Your task to perform on an android device: Add "razer naga" to the cart on target.com, then select checkout. Image 0: 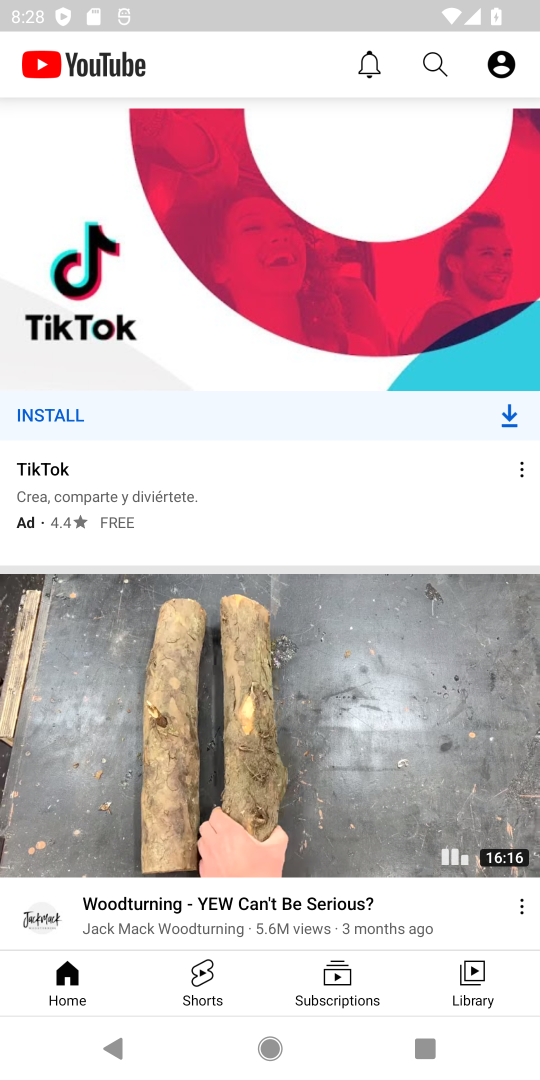
Step 0: press home button
Your task to perform on an android device: Add "razer naga" to the cart on target.com, then select checkout. Image 1: 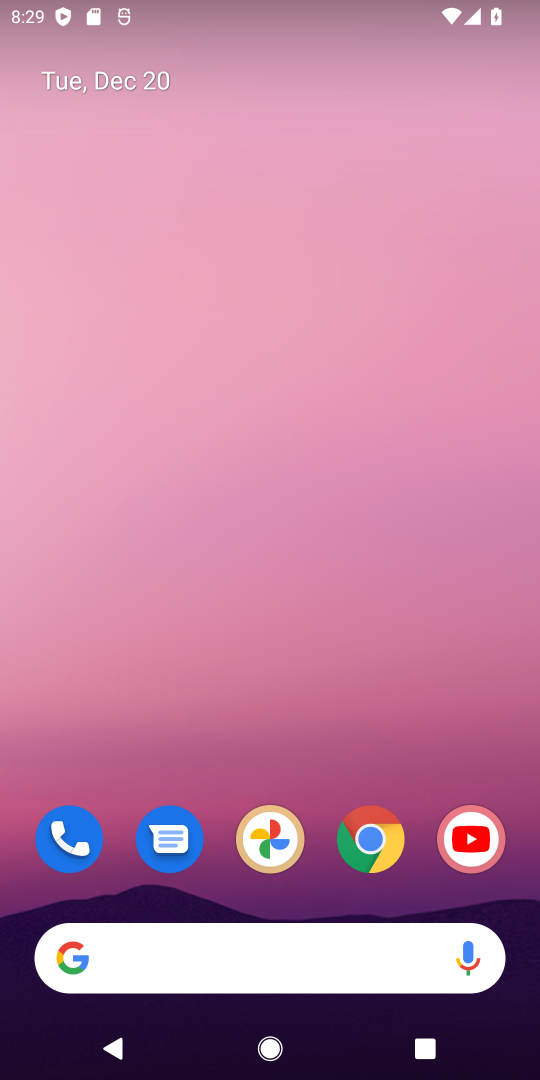
Step 1: drag from (222, 804) to (263, 402)
Your task to perform on an android device: Add "razer naga" to the cart on target.com, then select checkout. Image 2: 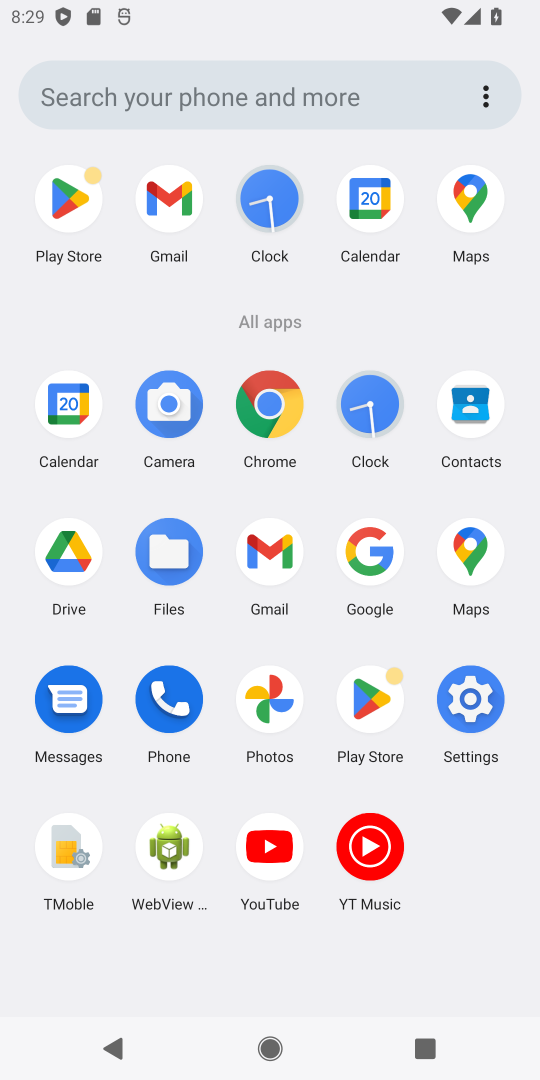
Step 2: click (375, 581)
Your task to perform on an android device: Add "razer naga" to the cart on target.com, then select checkout. Image 3: 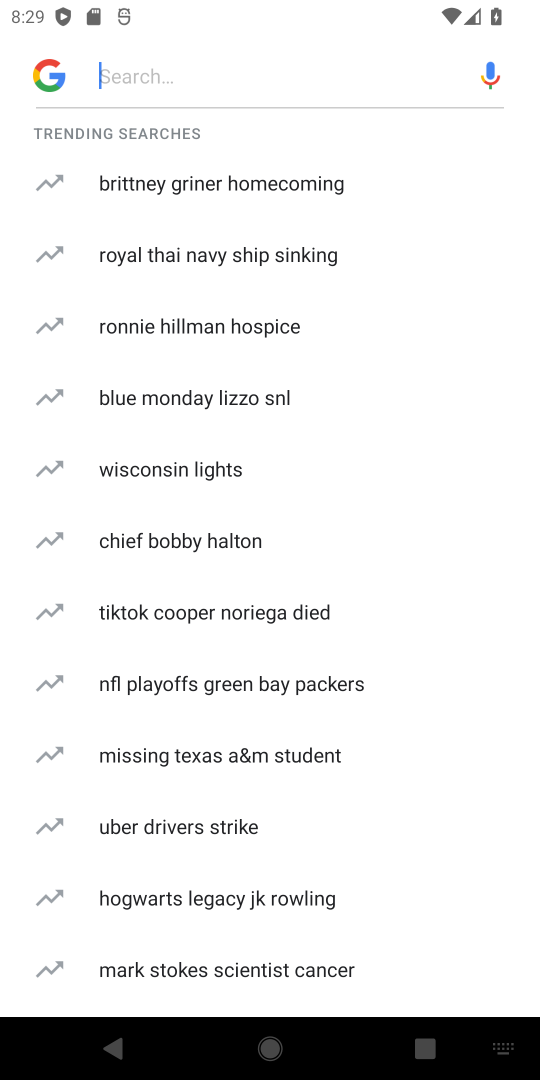
Step 3: type "target.com"
Your task to perform on an android device: Add "razer naga" to the cart on target.com, then select checkout. Image 4: 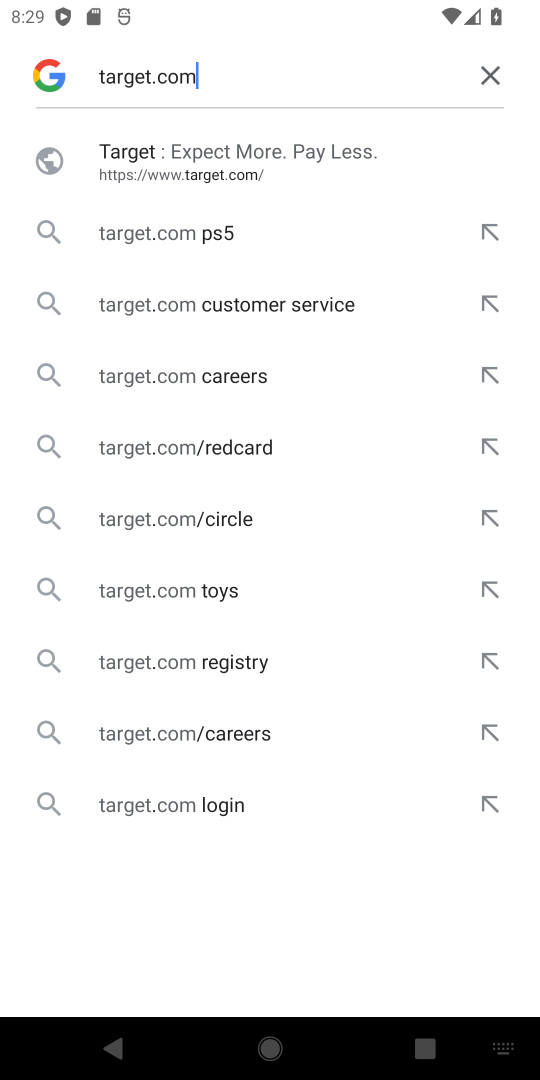
Step 4: click (149, 164)
Your task to perform on an android device: Add "razer naga" to the cart on target.com, then select checkout. Image 5: 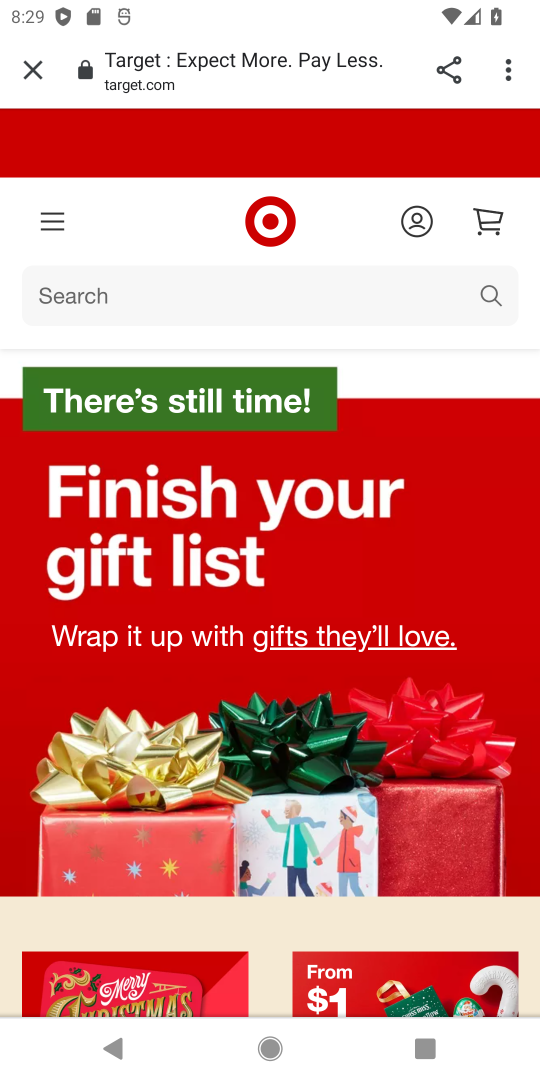
Step 5: drag from (278, 649) to (304, 421)
Your task to perform on an android device: Add "razer naga" to the cart on target.com, then select checkout. Image 6: 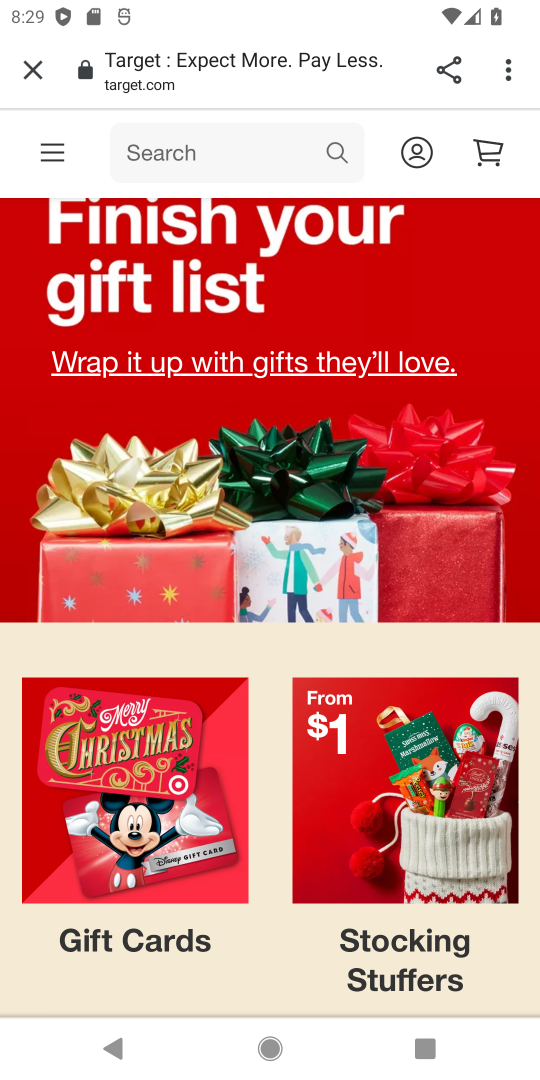
Step 6: click (252, 149)
Your task to perform on an android device: Add "razer naga" to the cart on target.com, then select checkout. Image 7: 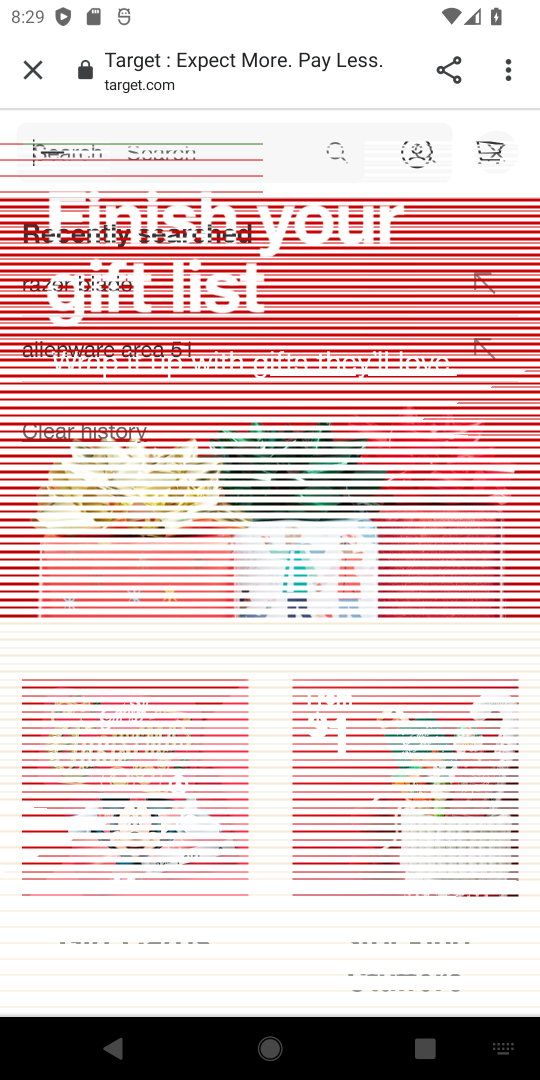
Step 7: type "razer naga"
Your task to perform on an android device: Add "razer naga" to the cart on target.com, then select checkout. Image 8: 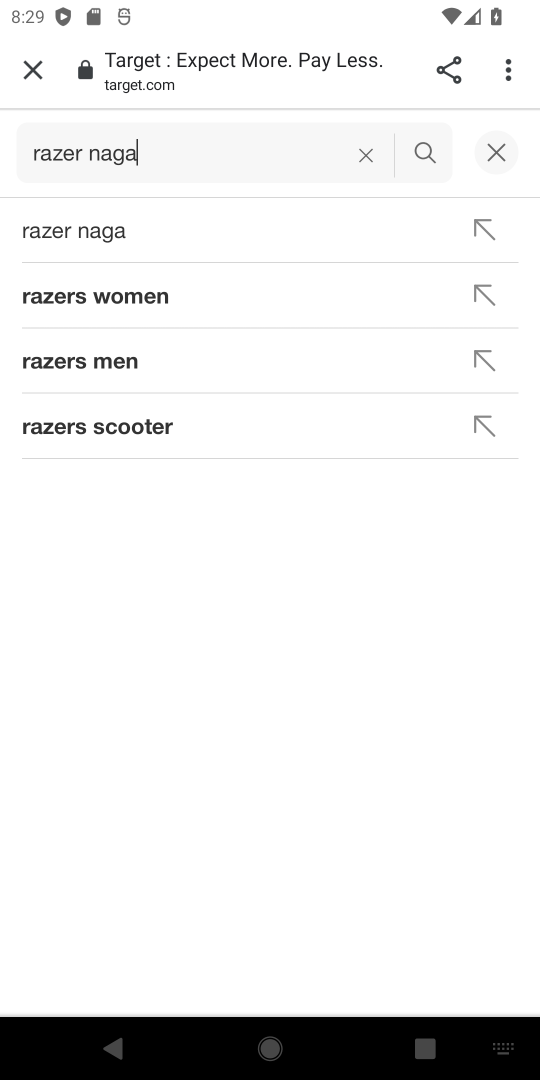
Step 8: click (112, 227)
Your task to perform on an android device: Add "razer naga" to the cart on target.com, then select checkout. Image 9: 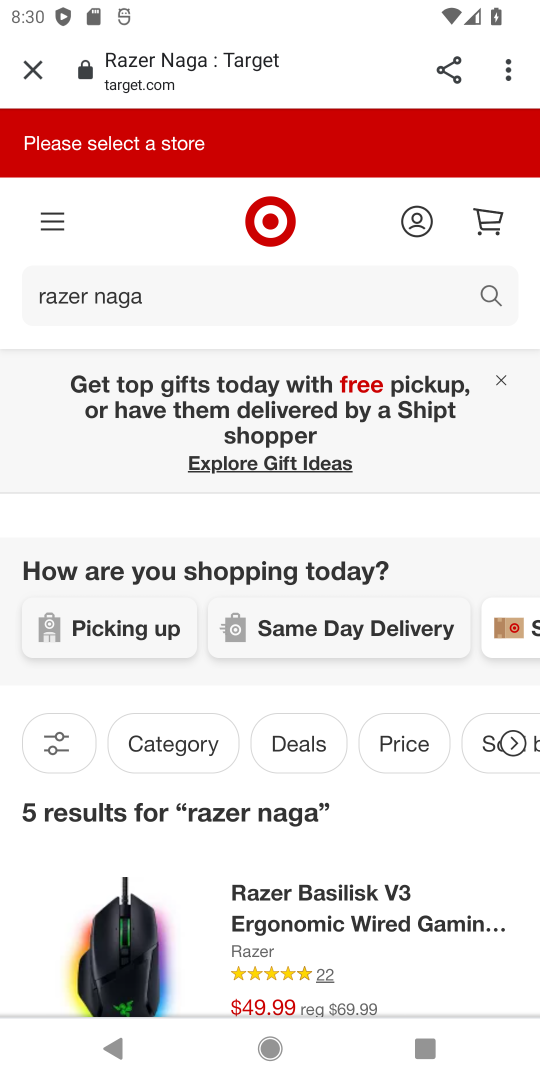
Step 9: drag from (278, 823) to (323, 570)
Your task to perform on an android device: Add "razer naga" to the cart on target.com, then select checkout. Image 10: 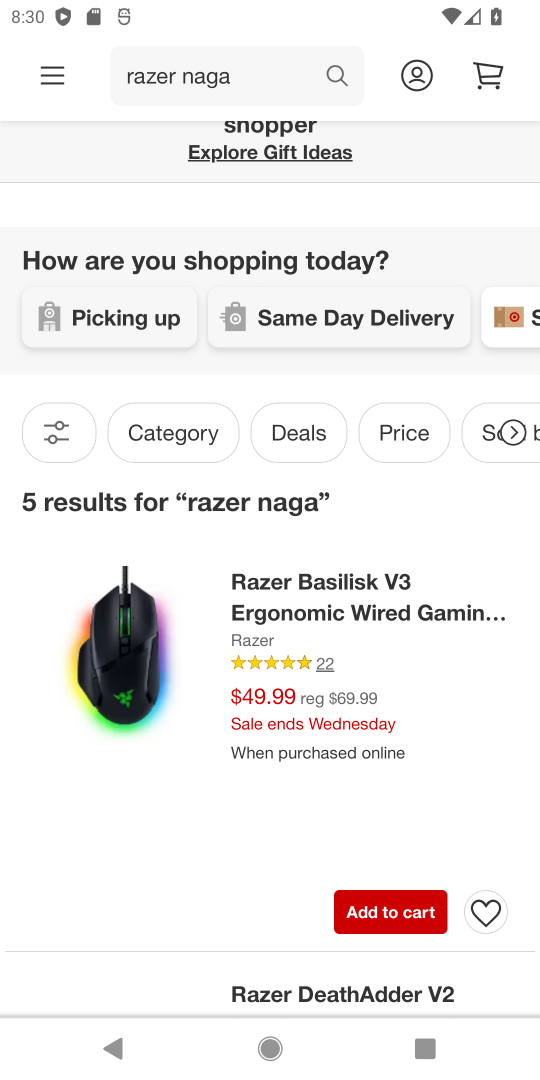
Step 10: click (371, 917)
Your task to perform on an android device: Add "razer naga" to the cart on target.com, then select checkout. Image 11: 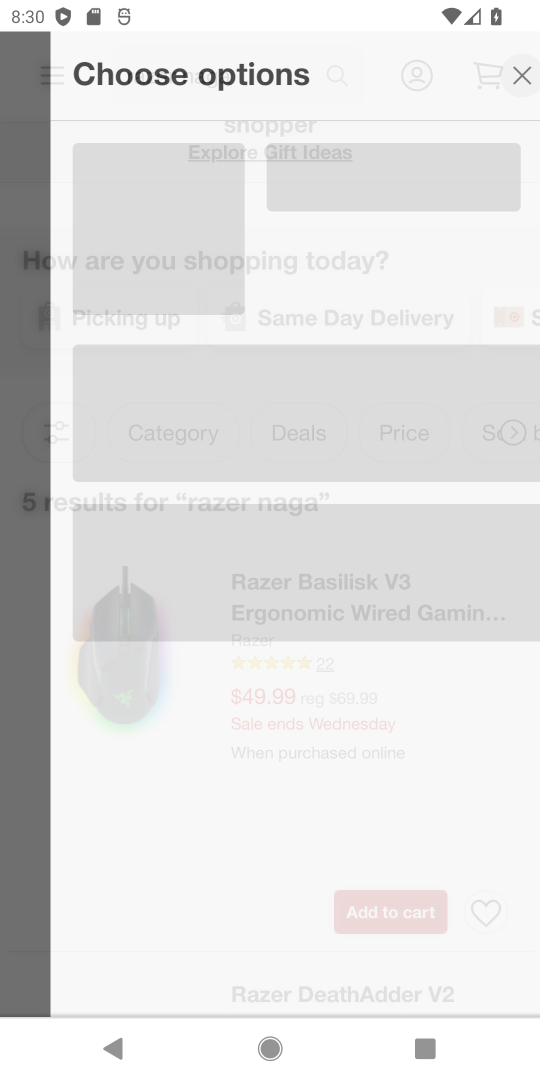
Step 11: click (525, 71)
Your task to perform on an android device: Add "razer naga" to the cart on target.com, then select checkout. Image 12: 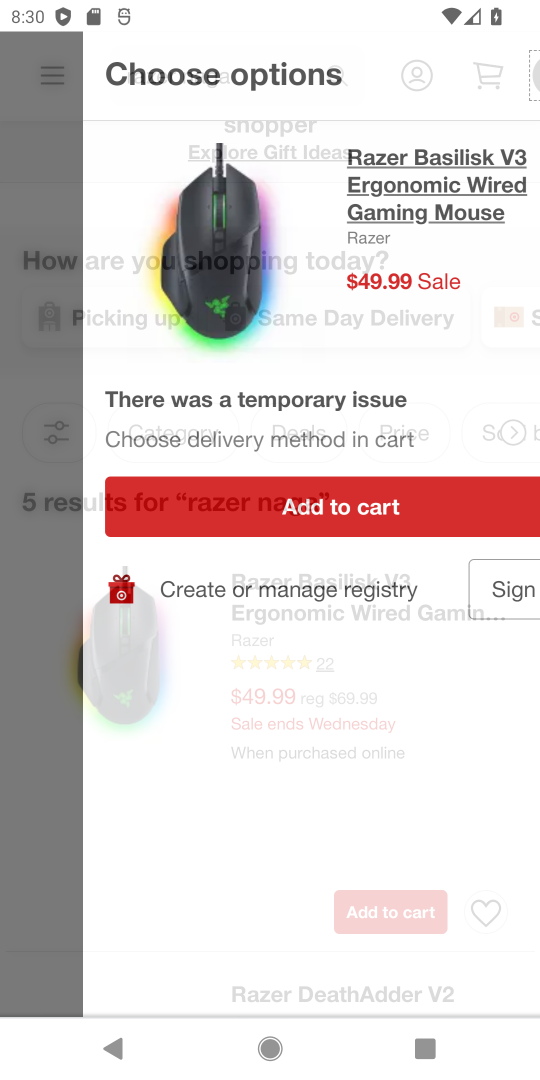
Step 12: click (343, 585)
Your task to perform on an android device: Add "razer naga" to the cart on target.com, then select checkout. Image 13: 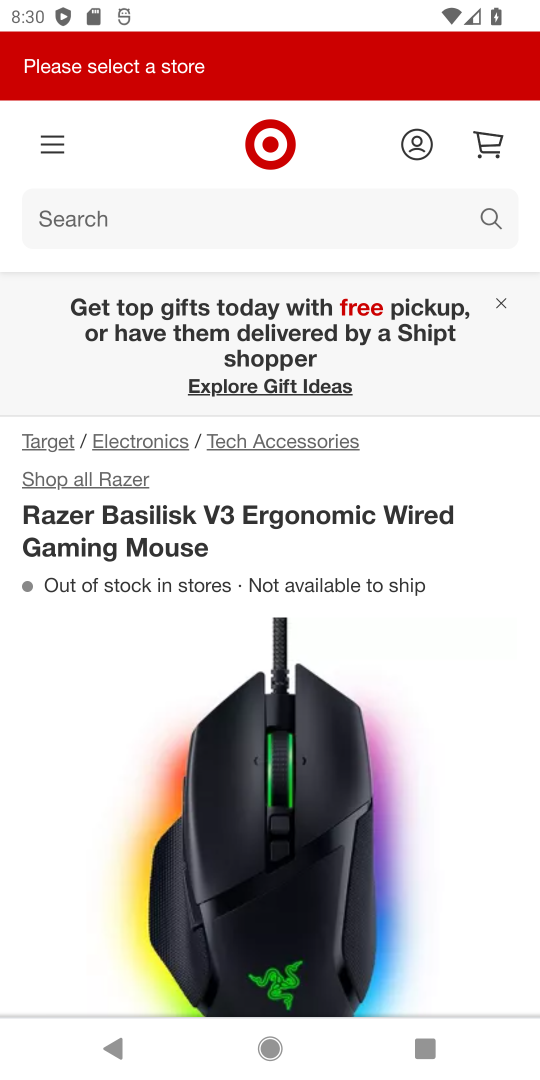
Step 13: press back button
Your task to perform on an android device: Add "razer naga" to the cart on target.com, then select checkout. Image 14: 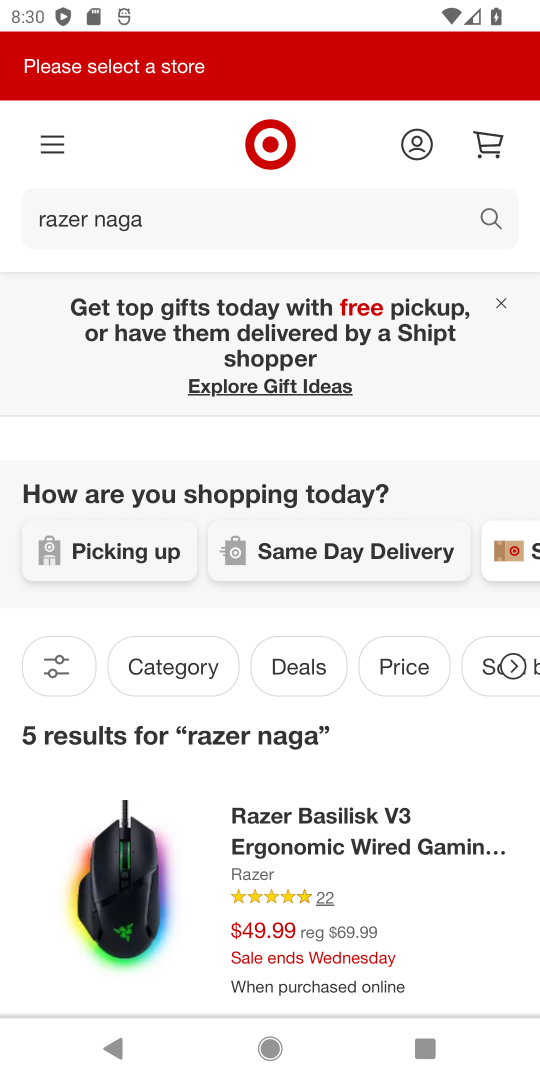
Step 14: drag from (310, 847) to (310, 644)
Your task to perform on an android device: Add "razer naga" to the cart on target.com, then select checkout. Image 15: 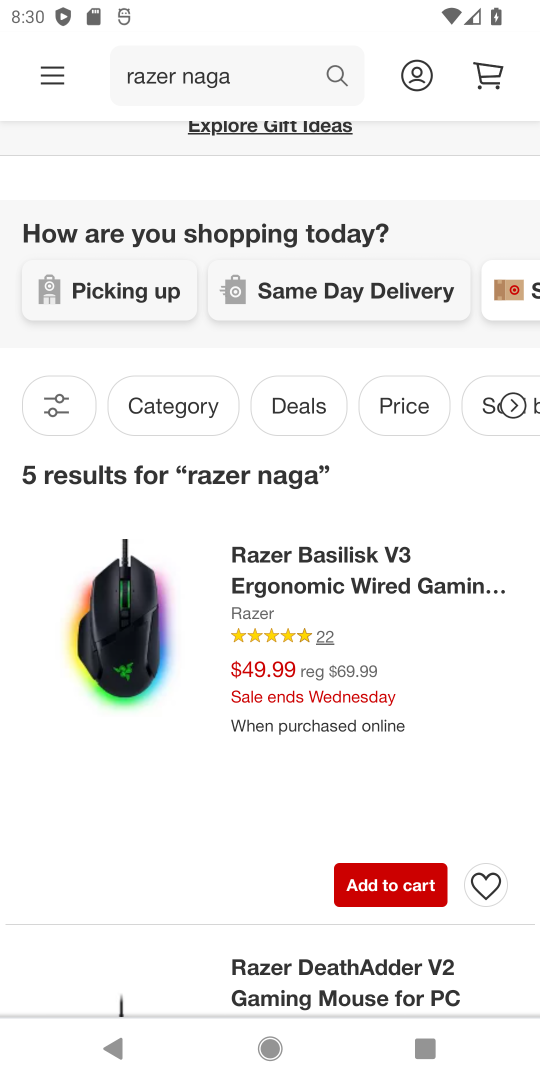
Step 15: click (382, 881)
Your task to perform on an android device: Add "razer naga" to the cart on target.com, then select checkout. Image 16: 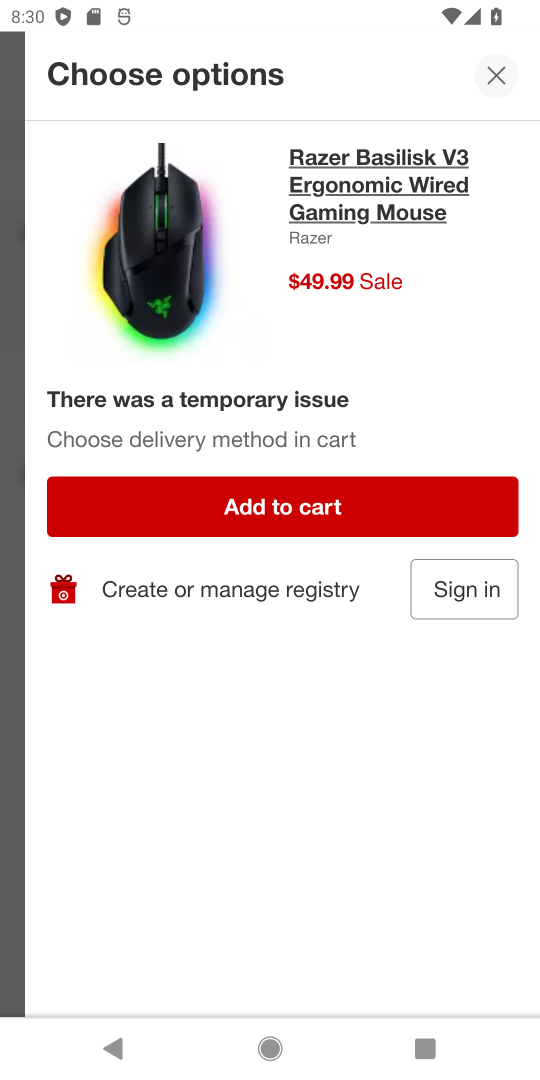
Step 16: click (290, 497)
Your task to perform on an android device: Add "razer naga" to the cart on target.com, then select checkout. Image 17: 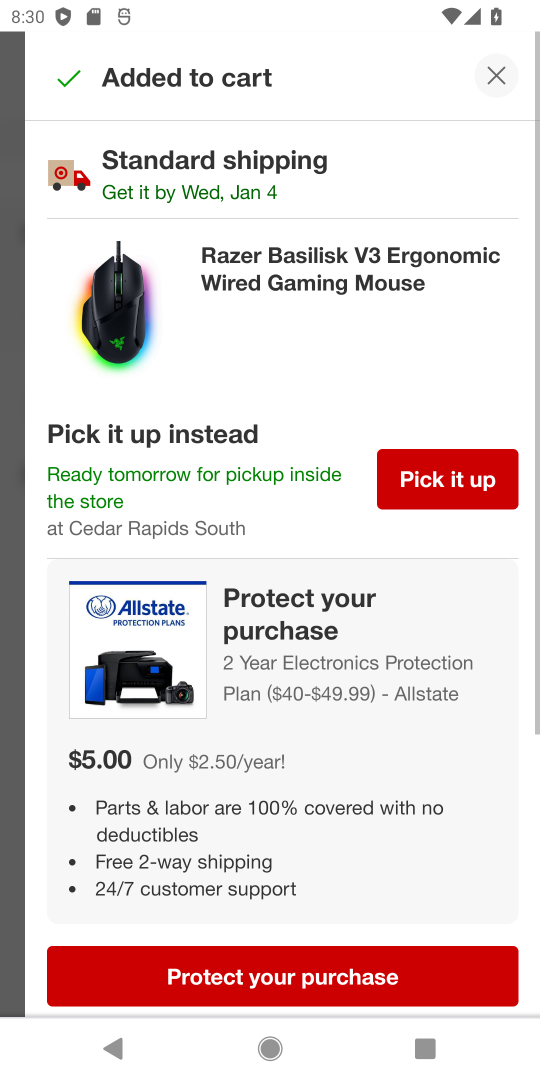
Step 17: click (497, 66)
Your task to perform on an android device: Add "razer naga" to the cart on target.com, then select checkout. Image 18: 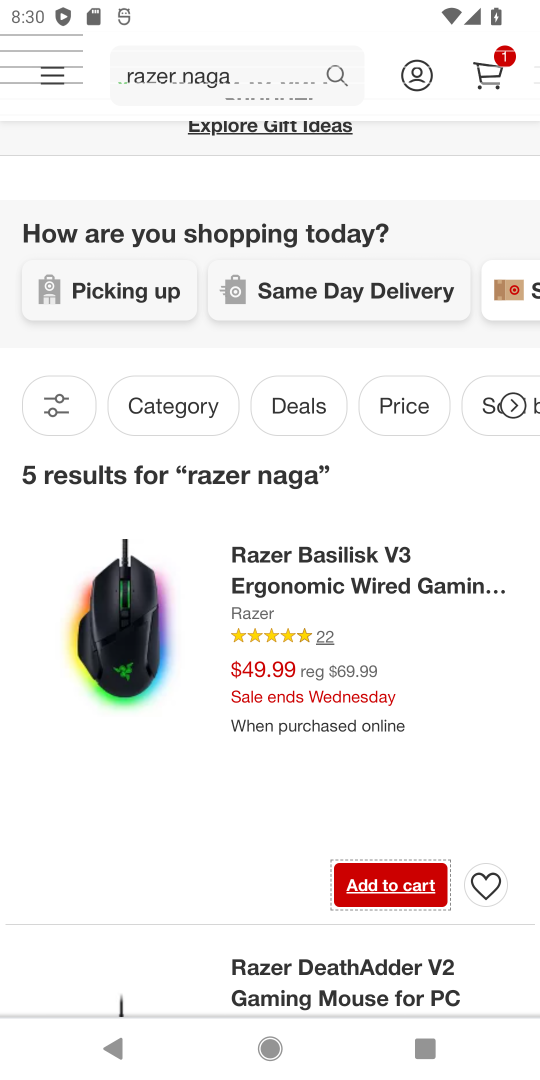
Step 18: click (497, 66)
Your task to perform on an android device: Add "razer naga" to the cart on target.com, then select checkout. Image 19: 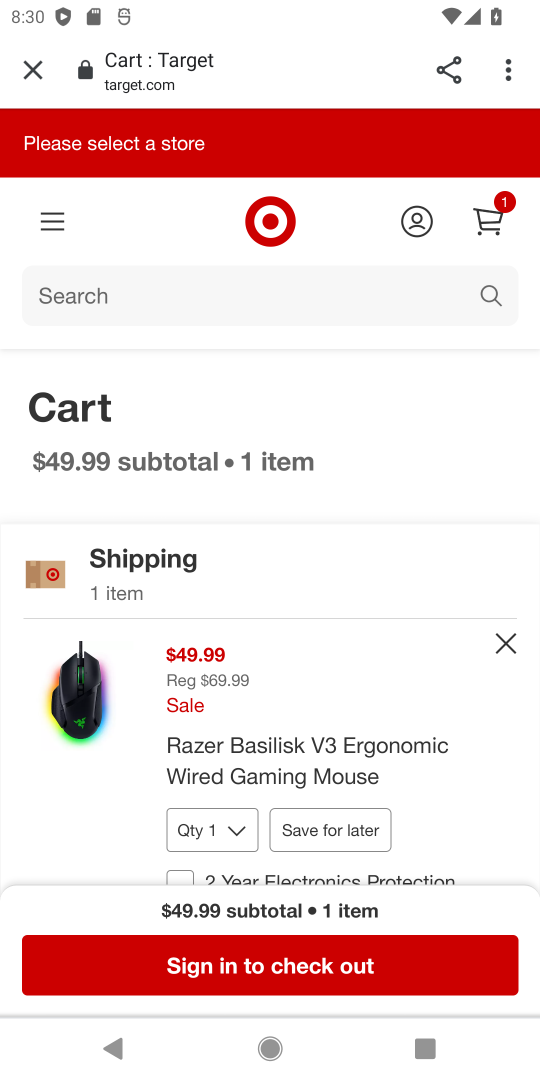
Step 19: drag from (230, 867) to (230, 623)
Your task to perform on an android device: Add "razer naga" to the cart on target.com, then select checkout. Image 20: 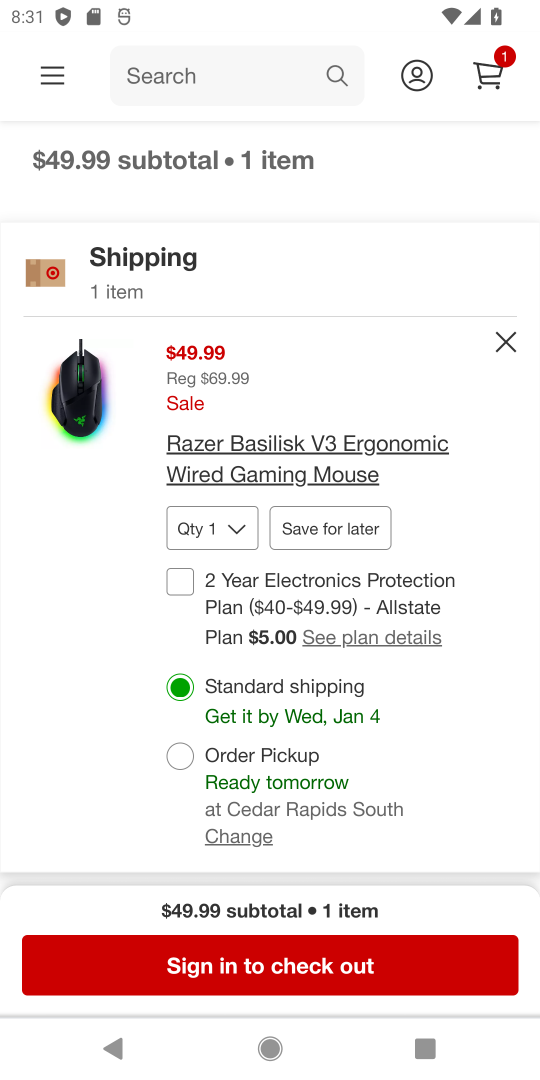
Step 20: click (256, 953)
Your task to perform on an android device: Add "razer naga" to the cart on target.com, then select checkout. Image 21: 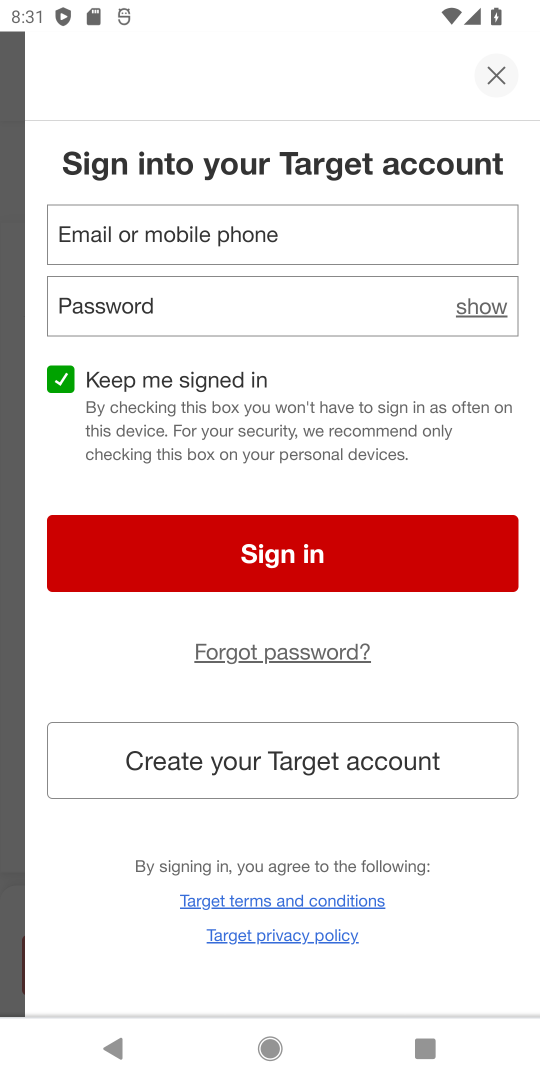
Step 21: task complete